Your task to perform on an android device: Go to internet settings Image 0: 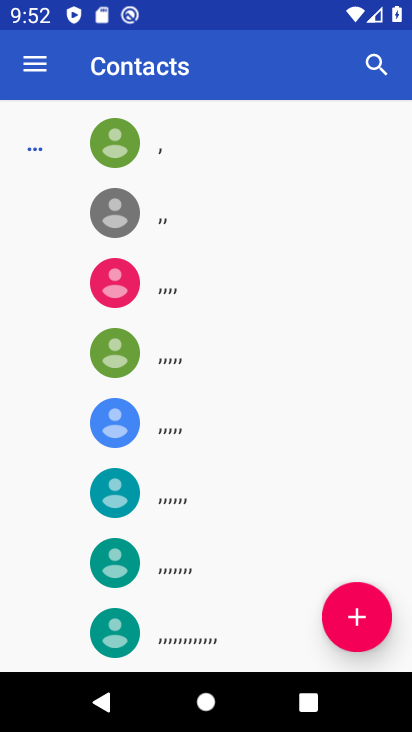
Step 0: press home button
Your task to perform on an android device: Go to internet settings Image 1: 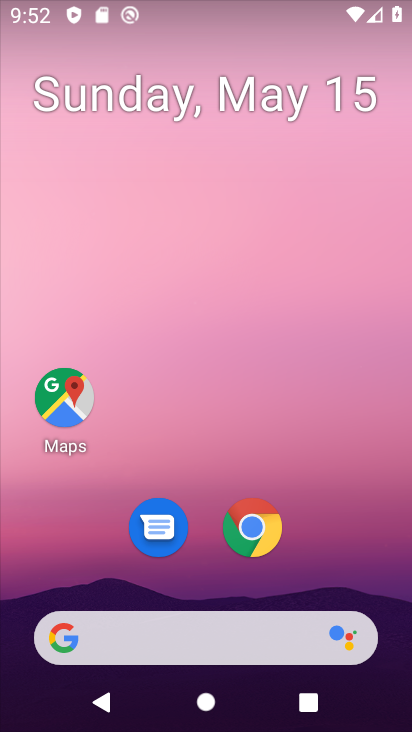
Step 1: drag from (27, 598) to (191, 194)
Your task to perform on an android device: Go to internet settings Image 2: 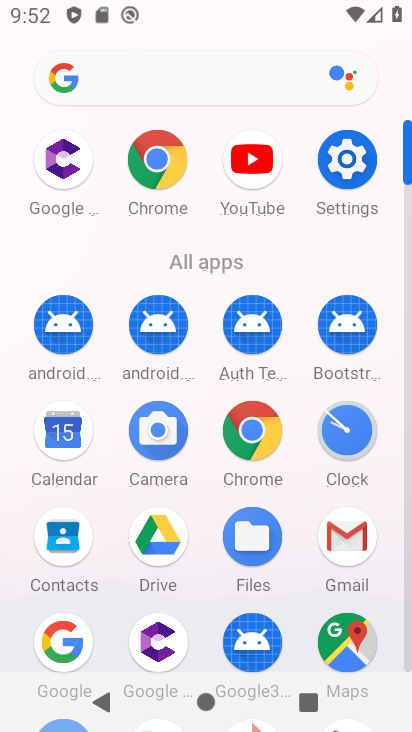
Step 2: drag from (172, 570) to (208, 414)
Your task to perform on an android device: Go to internet settings Image 3: 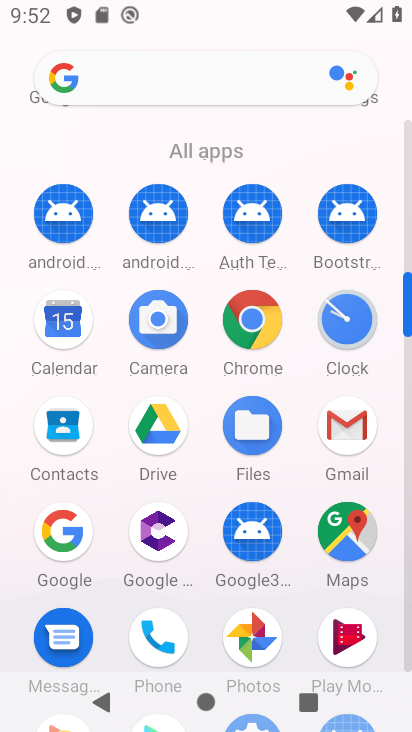
Step 3: drag from (197, 591) to (269, 291)
Your task to perform on an android device: Go to internet settings Image 4: 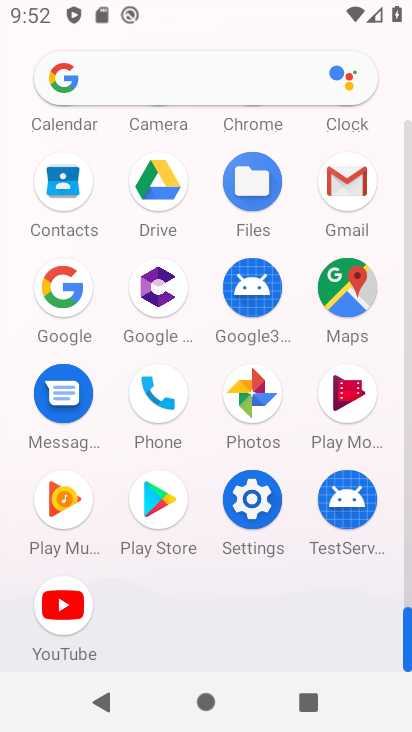
Step 4: click (255, 500)
Your task to perform on an android device: Go to internet settings Image 5: 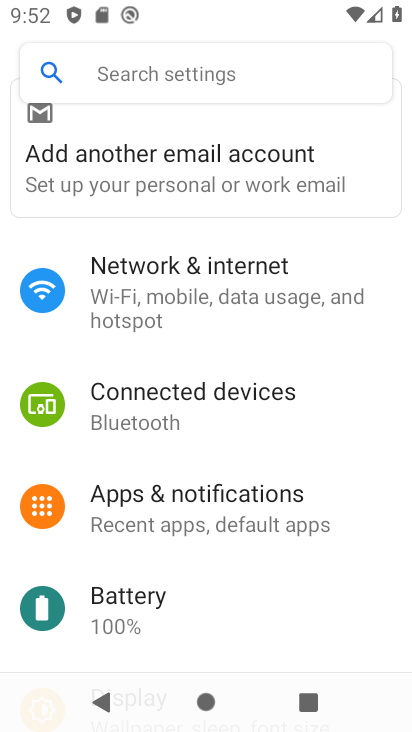
Step 5: click (236, 320)
Your task to perform on an android device: Go to internet settings Image 6: 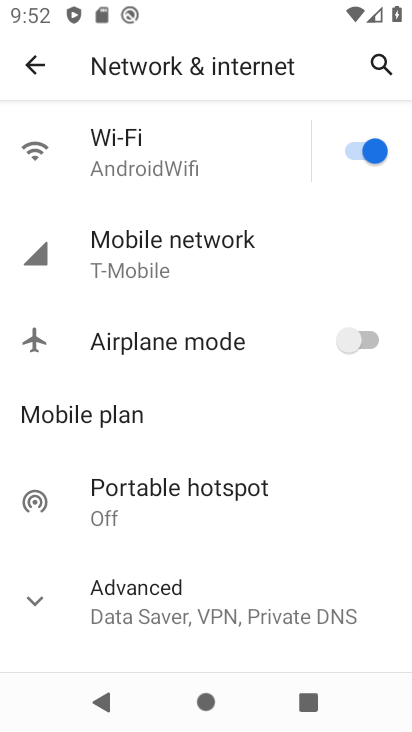
Step 6: click (236, 281)
Your task to perform on an android device: Go to internet settings Image 7: 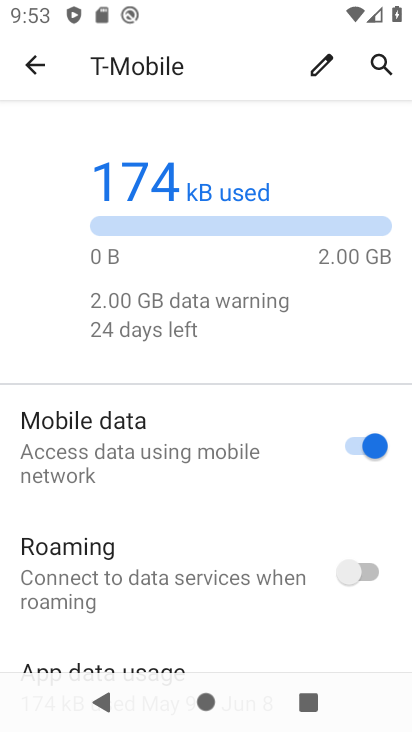
Step 7: task complete